Your task to perform on an android device: Search for seafood restaurants on Google Maps Image 0: 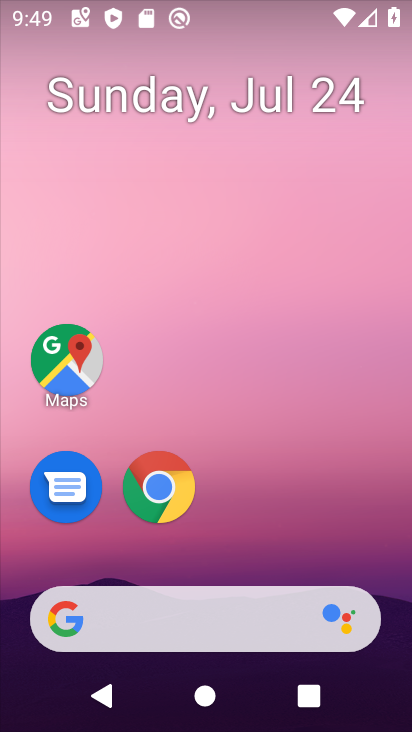
Step 0: click (74, 363)
Your task to perform on an android device: Search for seafood restaurants on Google Maps Image 1: 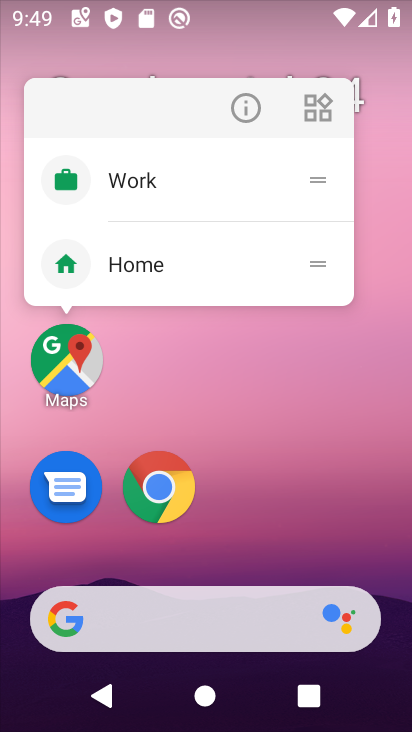
Step 1: click (80, 358)
Your task to perform on an android device: Search for seafood restaurants on Google Maps Image 2: 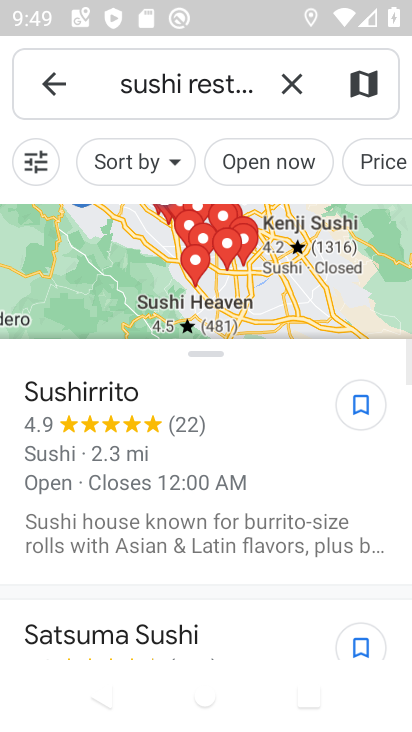
Step 2: click (280, 71)
Your task to perform on an android device: Search for seafood restaurants on Google Maps Image 3: 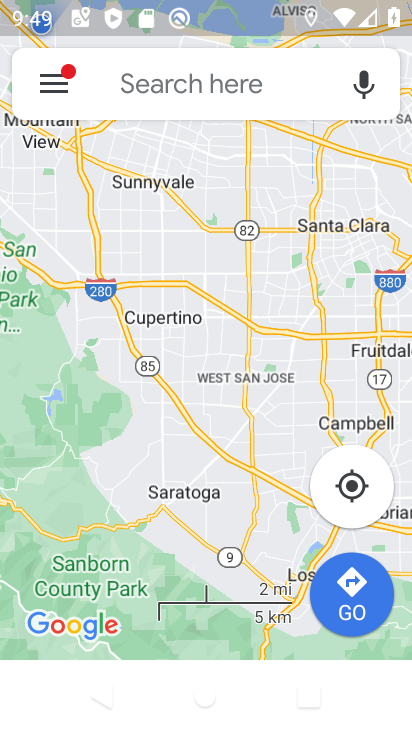
Step 3: click (139, 102)
Your task to perform on an android device: Search for seafood restaurants on Google Maps Image 4: 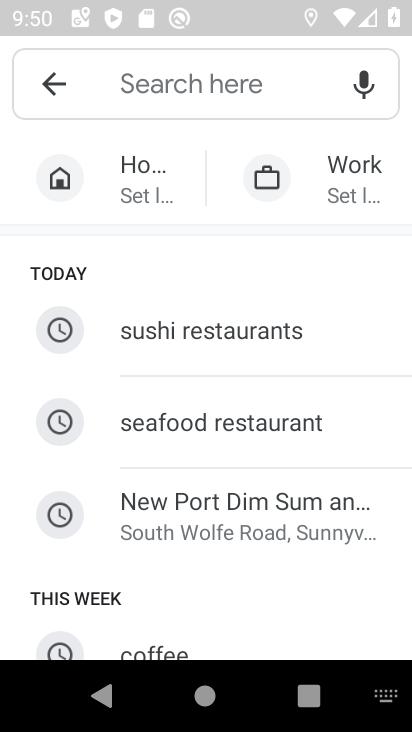
Step 4: type "seafood restaurants"
Your task to perform on an android device: Search for seafood restaurants on Google Maps Image 5: 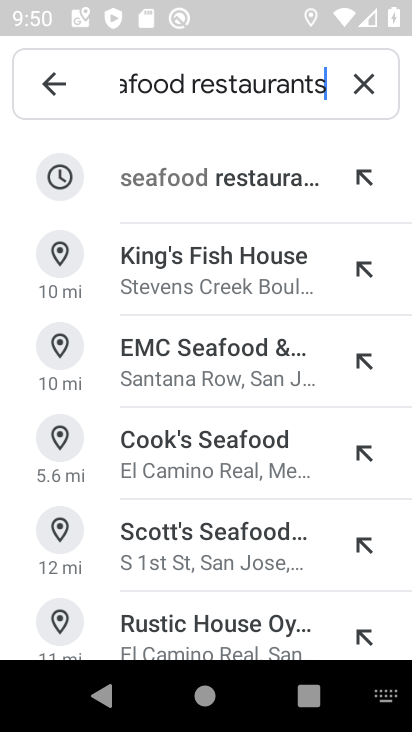
Step 5: click (233, 181)
Your task to perform on an android device: Search for seafood restaurants on Google Maps Image 6: 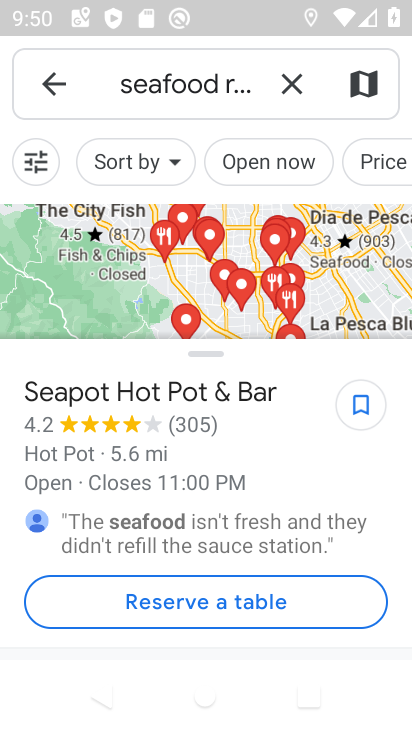
Step 6: task complete